Your task to perform on an android device: turn off priority inbox in the gmail app Image 0: 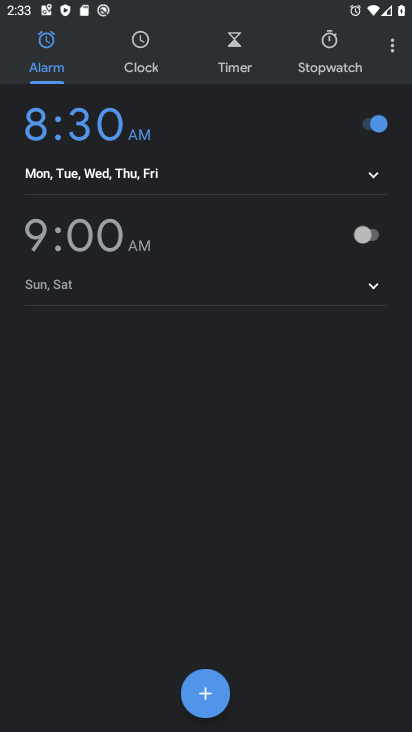
Step 0: press home button
Your task to perform on an android device: turn off priority inbox in the gmail app Image 1: 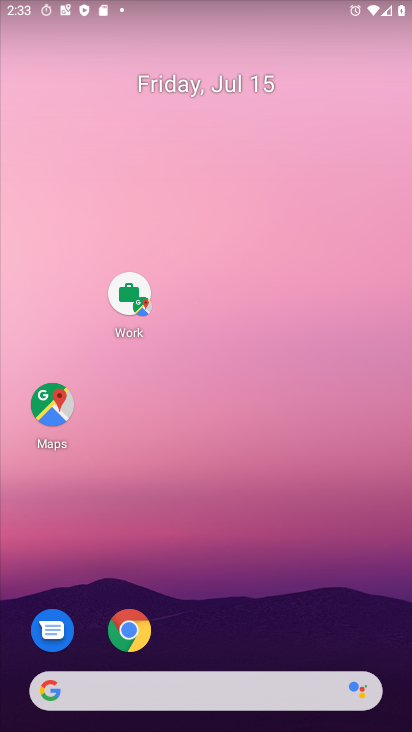
Step 1: drag from (212, 604) to (233, 237)
Your task to perform on an android device: turn off priority inbox in the gmail app Image 2: 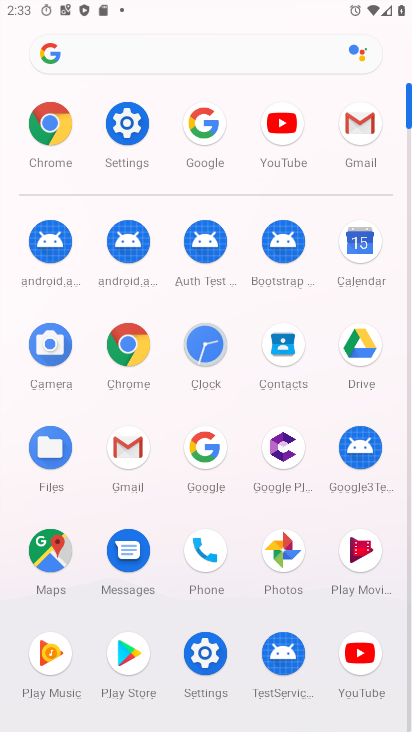
Step 2: click (351, 131)
Your task to perform on an android device: turn off priority inbox in the gmail app Image 3: 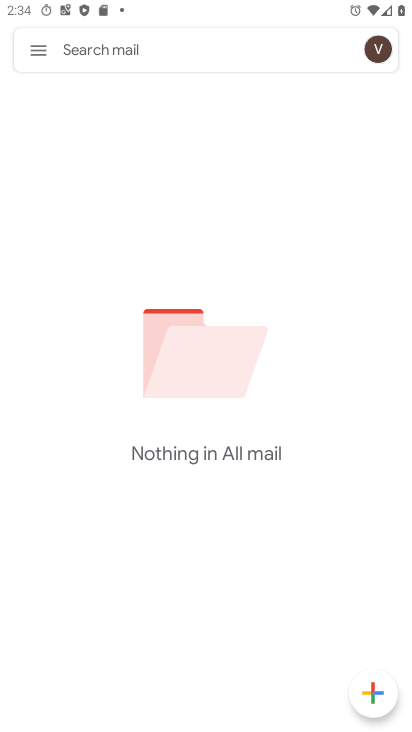
Step 3: click (30, 47)
Your task to perform on an android device: turn off priority inbox in the gmail app Image 4: 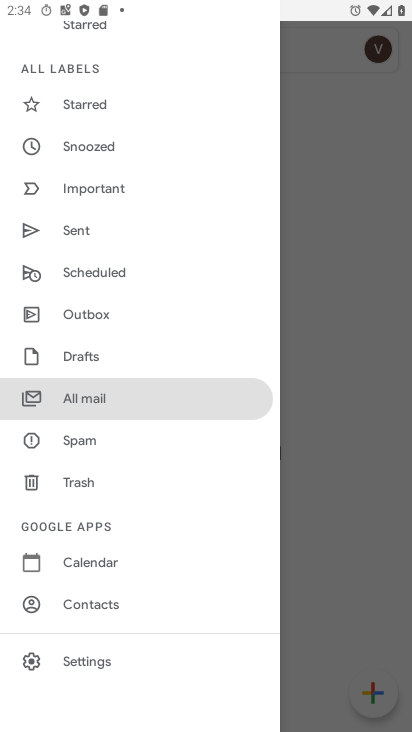
Step 4: click (95, 659)
Your task to perform on an android device: turn off priority inbox in the gmail app Image 5: 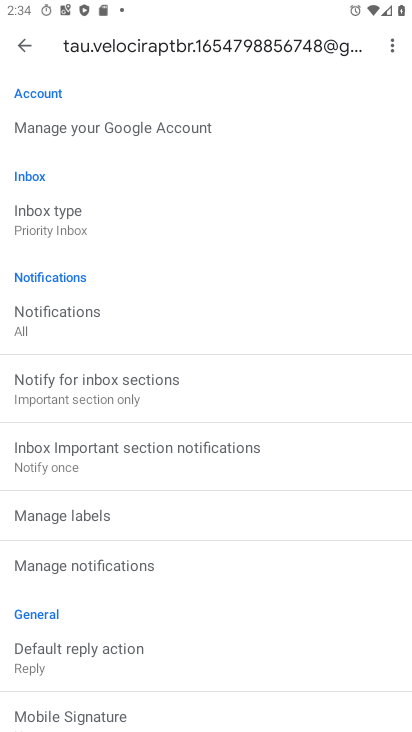
Step 5: click (75, 225)
Your task to perform on an android device: turn off priority inbox in the gmail app Image 6: 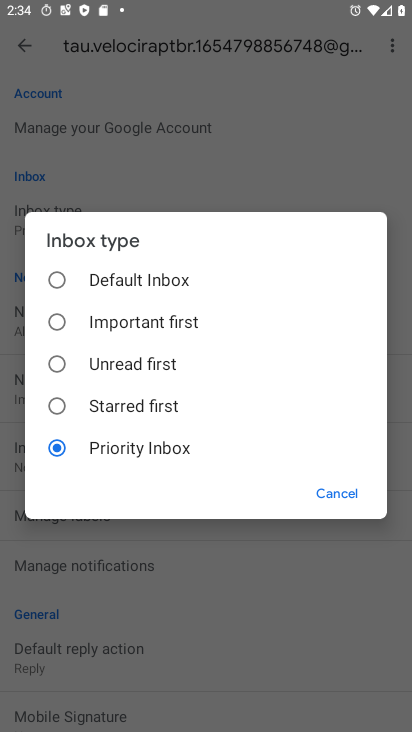
Step 6: click (102, 276)
Your task to perform on an android device: turn off priority inbox in the gmail app Image 7: 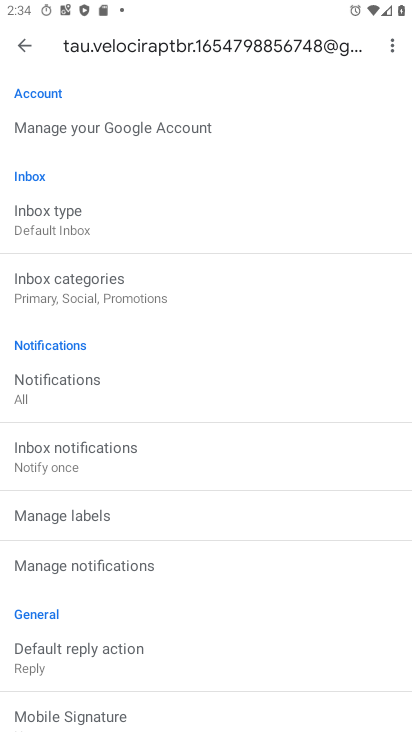
Step 7: task complete